Your task to perform on an android device: Check the weather Image 0: 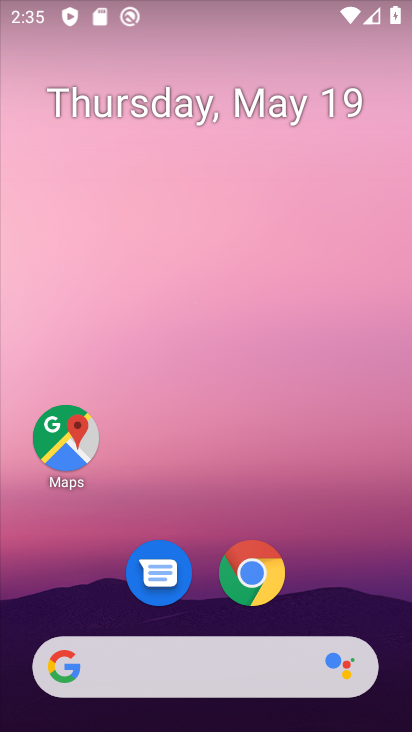
Step 0: drag from (183, 251) to (29, 245)
Your task to perform on an android device: Check the weather Image 1: 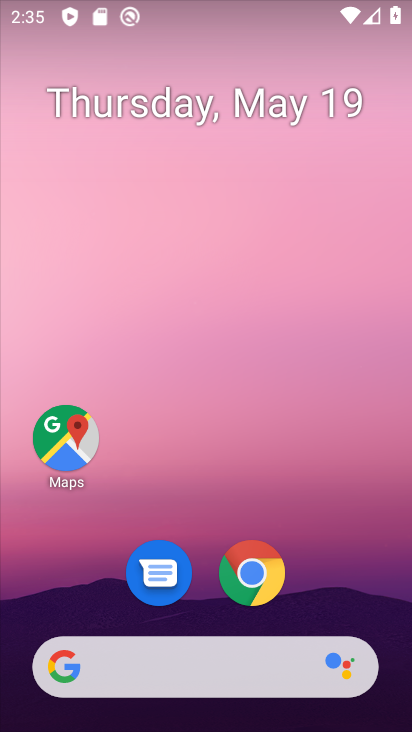
Step 1: drag from (274, 637) to (327, 254)
Your task to perform on an android device: Check the weather Image 2: 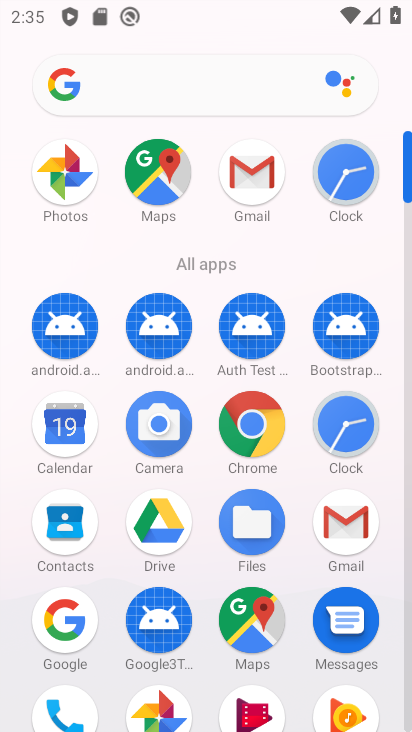
Step 2: drag from (258, 518) to (358, 221)
Your task to perform on an android device: Check the weather Image 3: 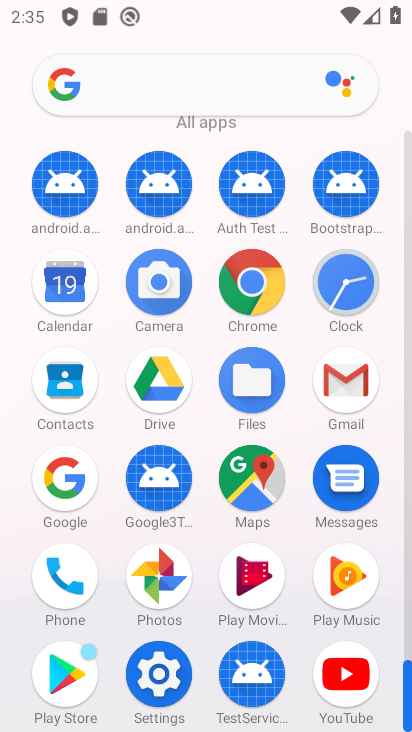
Step 3: drag from (311, 469) to (284, 602)
Your task to perform on an android device: Check the weather Image 4: 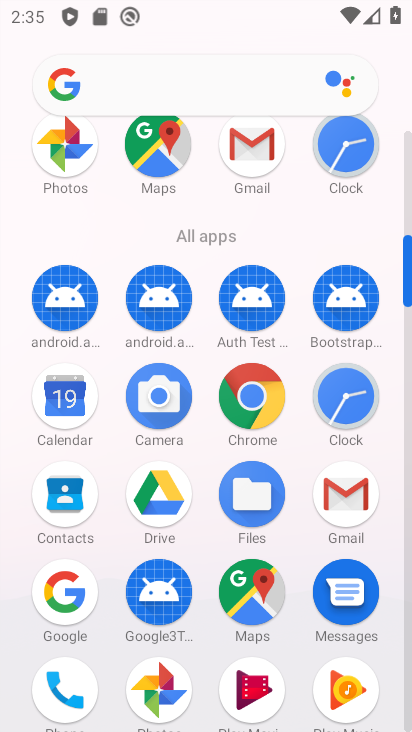
Step 4: click (263, 401)
Your task to perform on an android device: Check the weather Image 5: 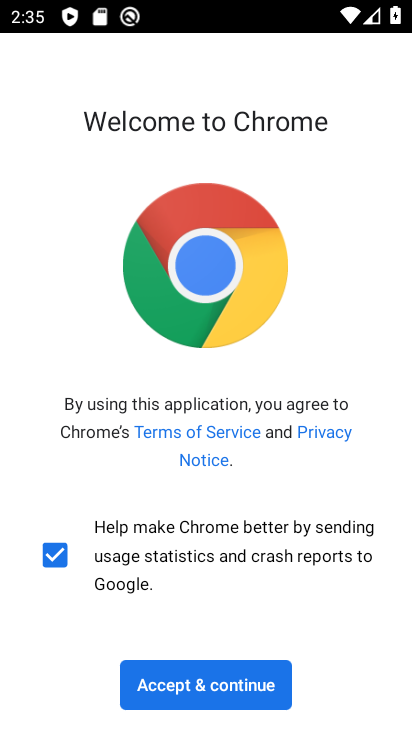
Step 5: click (183, 675)
Your task to perform on an android device: Check the weather Image 6: 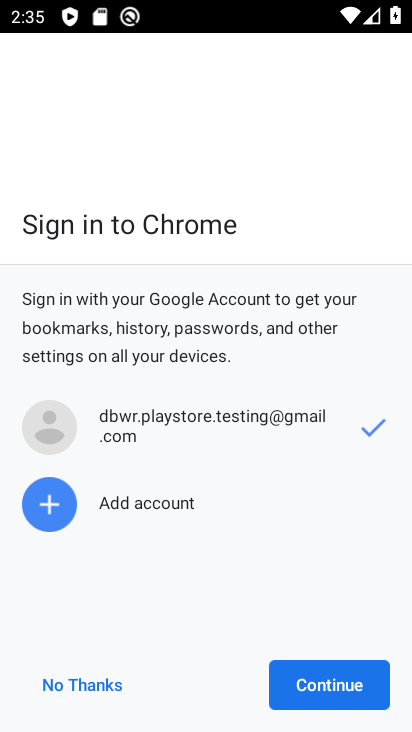
Step 6: click (70, 670)
Your task to perform on an android device: Check the weather Image 7: 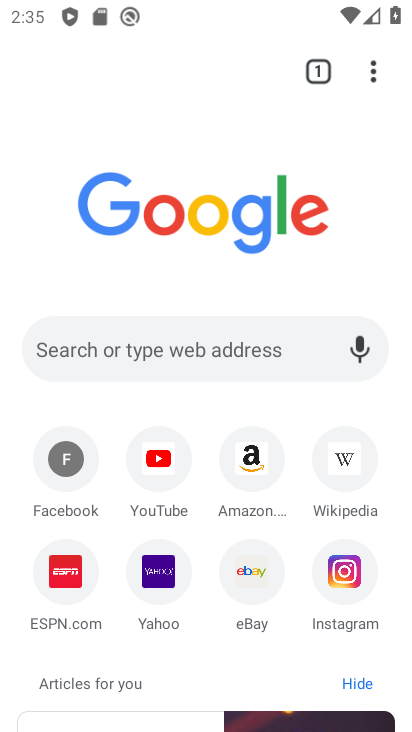
Step 7: click (132, 346)
Your task to perform on an android device: Check the weather Image 8: 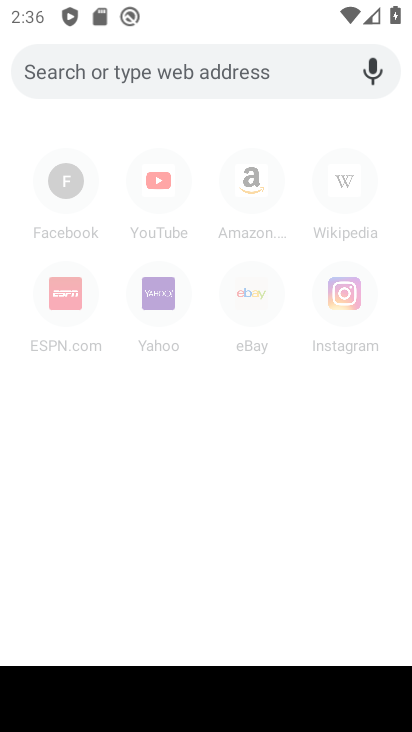
Step 8: type "wearher"
Your task to perform on an android device: Check the weather Image 9: 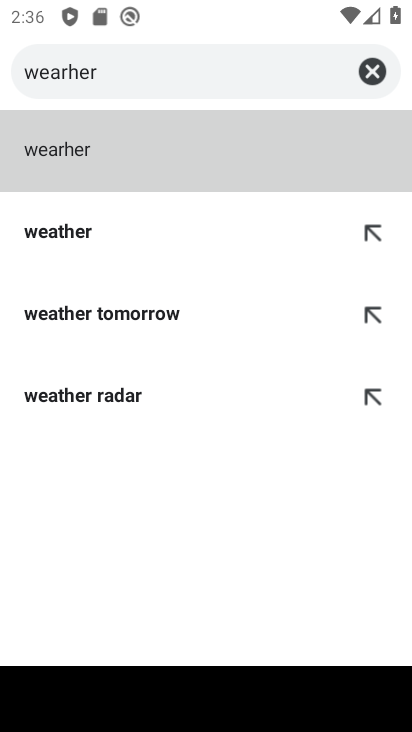
Step 9: click (93, 127)
Your task to perform on an android device: Check the weather Image 10: 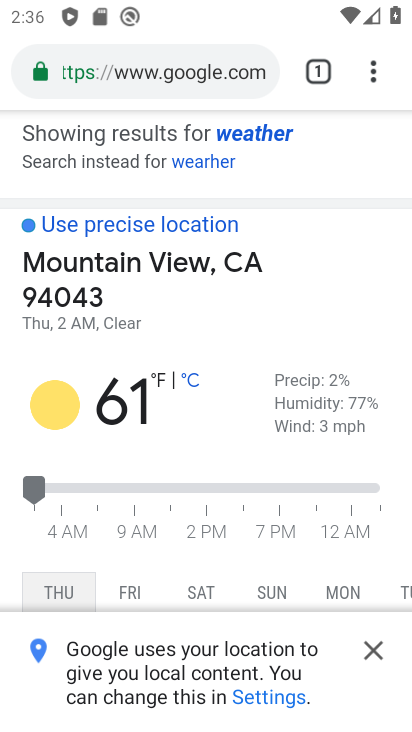
Step 10: task complete